Your task to perform on an android device: Clear the shopping cart on amazon. Search for usb-a on amazon, select the first entry, add it to the cart, then select checkout. Image 0: 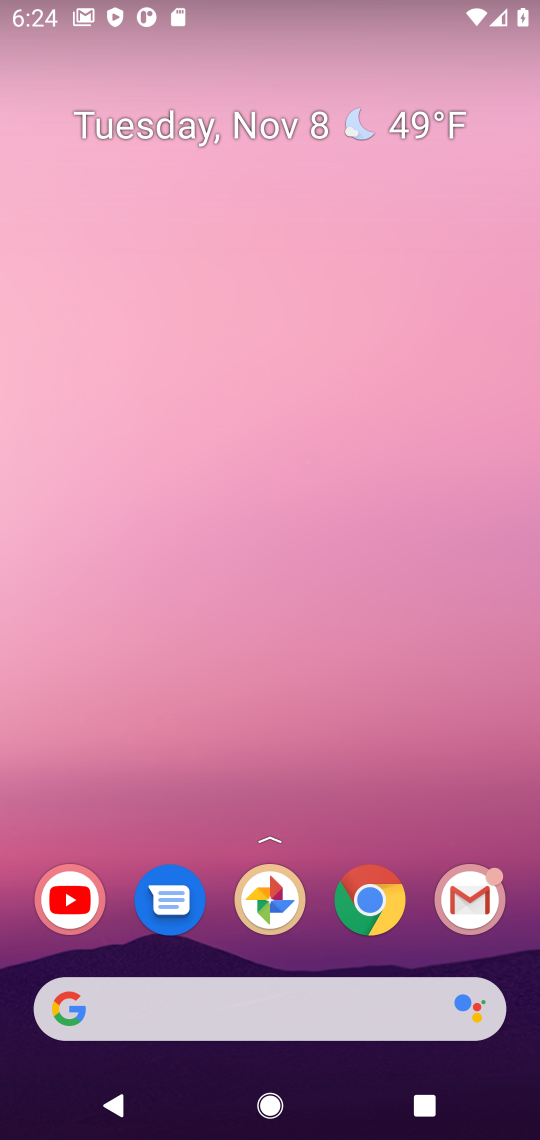
Step 0: click (393, 916)
Your task to perform on an android device: Clear the shopping cart on amazon. Search for usb-a on amazon, select the first entry, add it to the cart, then select checkout. Image 1: 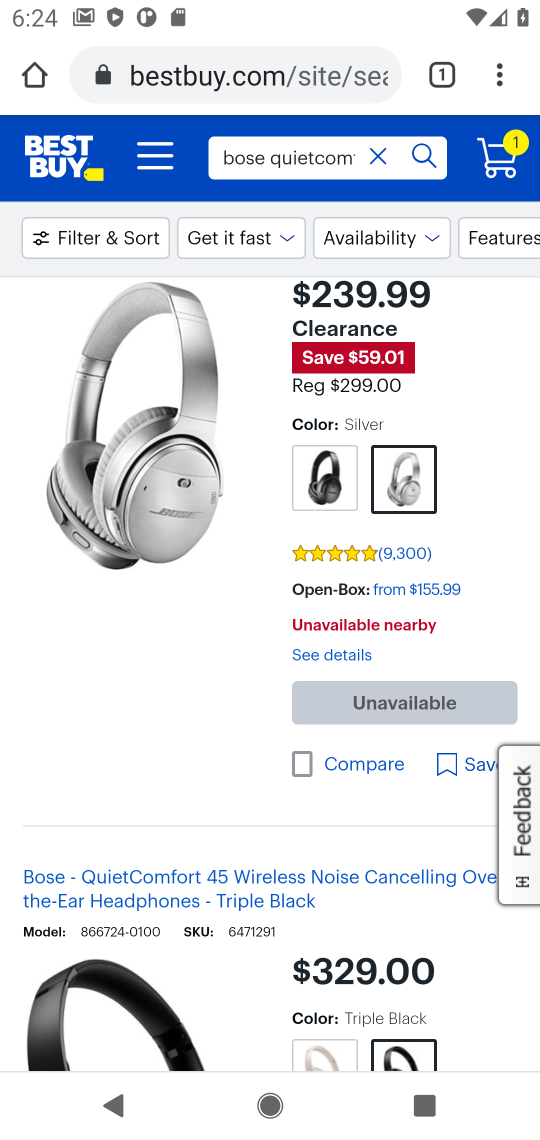
Step 1: click (348, 95)
Your task to perform on an android device: Clear the shopping cart on amazon. Search for usb-a on amazon, select the first entry, add it to the cart, then select checkout. Image 2: 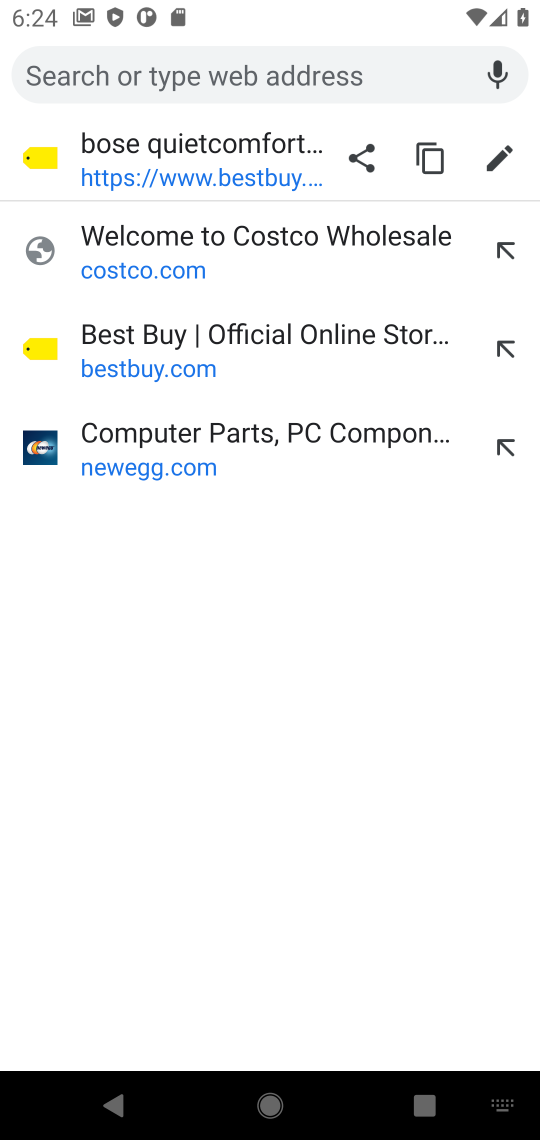
Step 2: type "amazon"
Your task to perform on an android device: Clear the shopping cart on amazon. Search for usb-a on amazon, select the first entry, add it to the cart, then select checkout. Image 3: 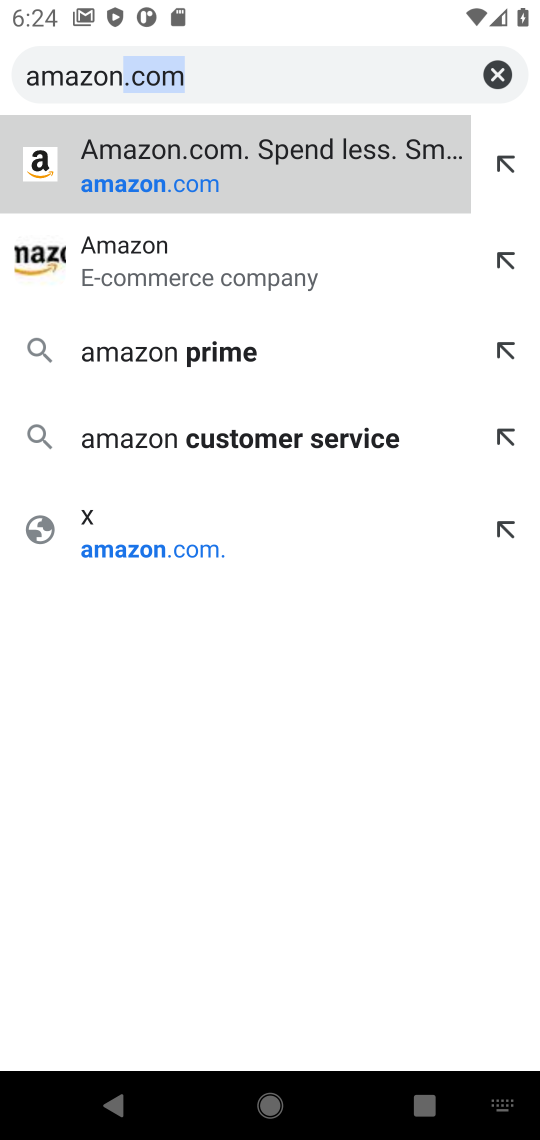
Step 3: type ""
Your task to perform on an android device: Clear the shopping cart on amazon. Search for usb-a on amazon, select the first entry, add it to the cart, then select checkout. Image 4: 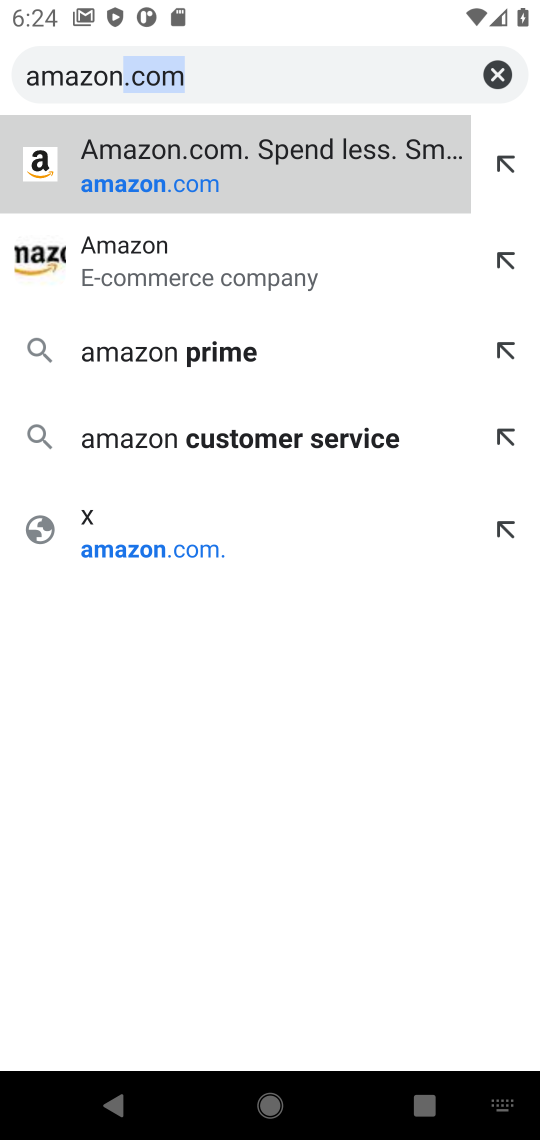
Step 4: press enter
Your task to perform on an android device: Clear the shopping cart on amazon. Search for usb-a on amazon, select the first entry, add it to the cart, then select checkout. Image 5: 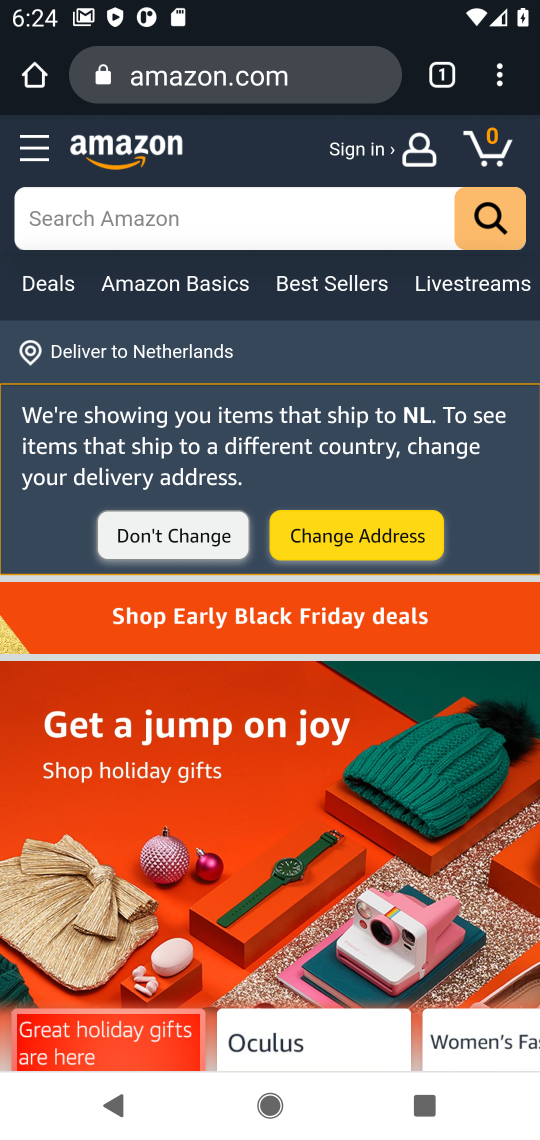
Step 5: click (502, 192)
Your task to perform on an android device: Clear the shopping cart on amazon. Search for usb-a on amazon, select the first entry, add it to the cart, then select checkout. Image 6: 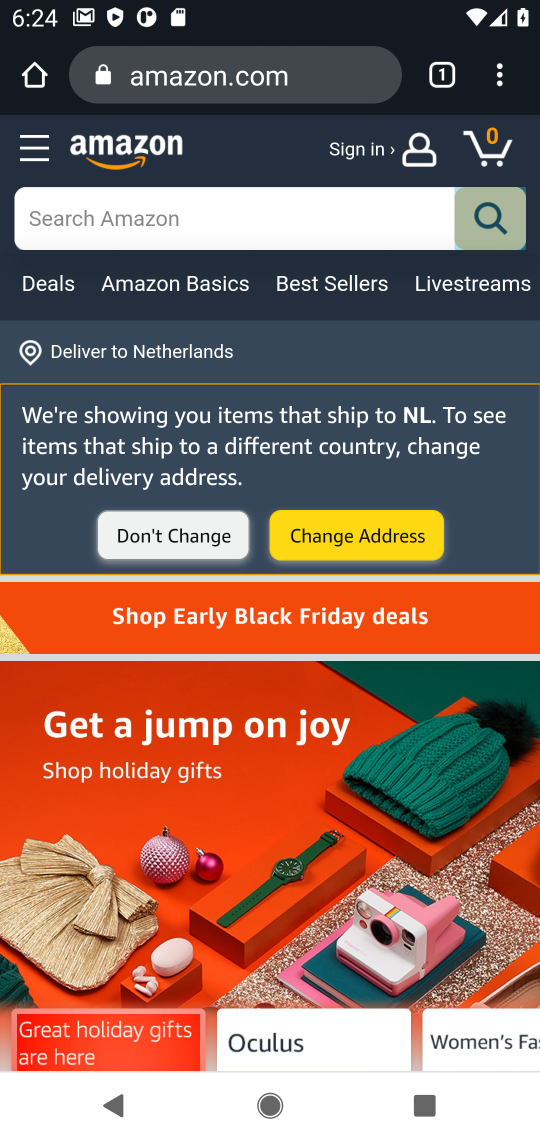
Step 6: click (489, 163)
Your task to perform on an android device: Clear the shopping cart on amazon. Search for usb-a on amazon, select the first entry, add it to the cart, then select checkout. Image 7: 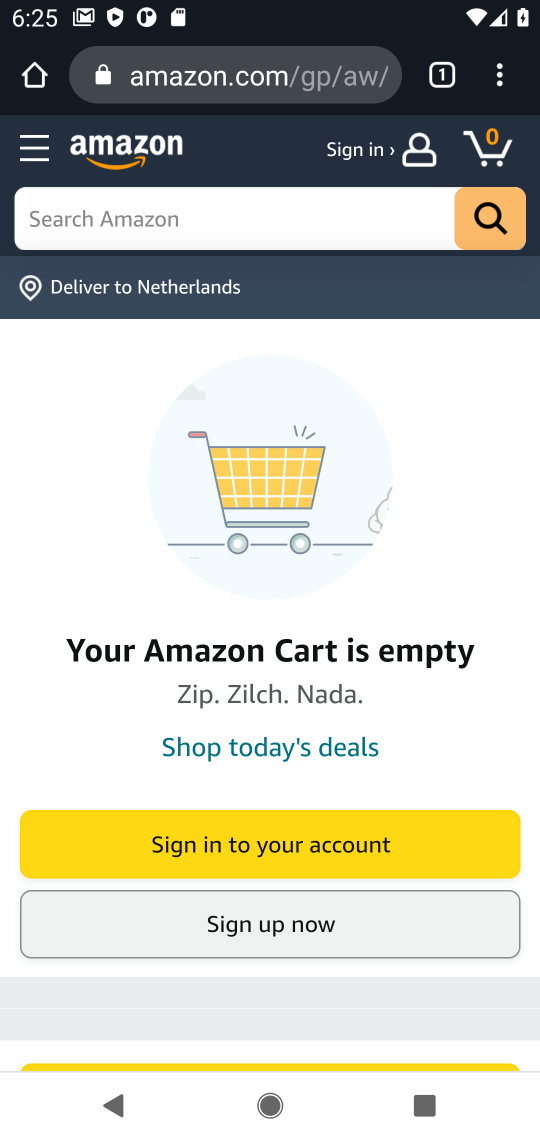
Step 7: click (217, 227)
Your task to perform on an android device: Clear the shopping cart on amazon. Search for usb-a on amazon, select the first entry, add it to the cart, then select checkout. Image 8: 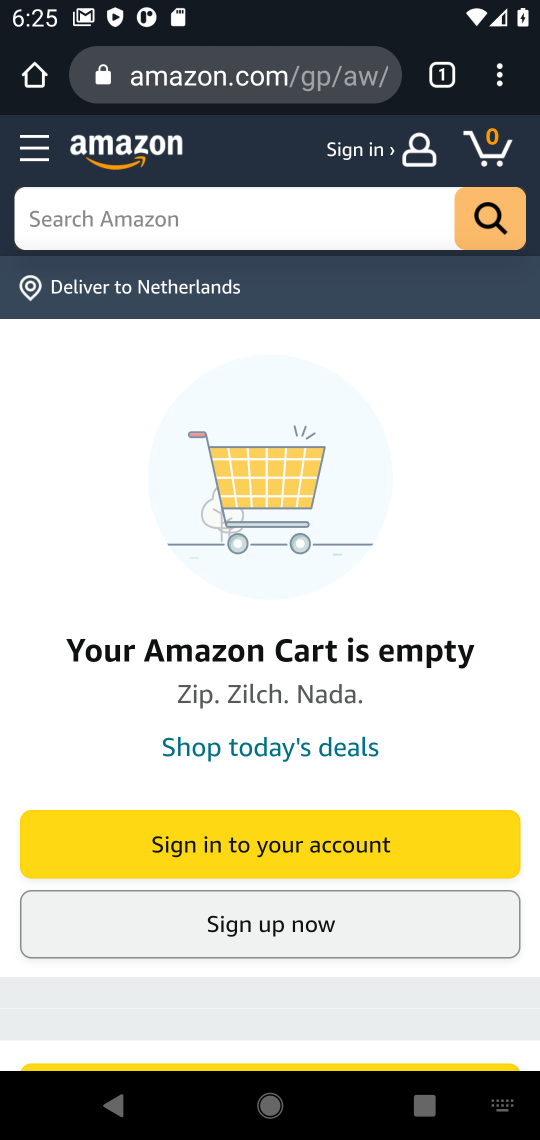
Step 8: type "usb-a"
Your task to perform on an android device: Clear the shopping cart on amazon. Search for usb-a on amazon, select the first entry, add it to the cart, then select checkout. Image 9: 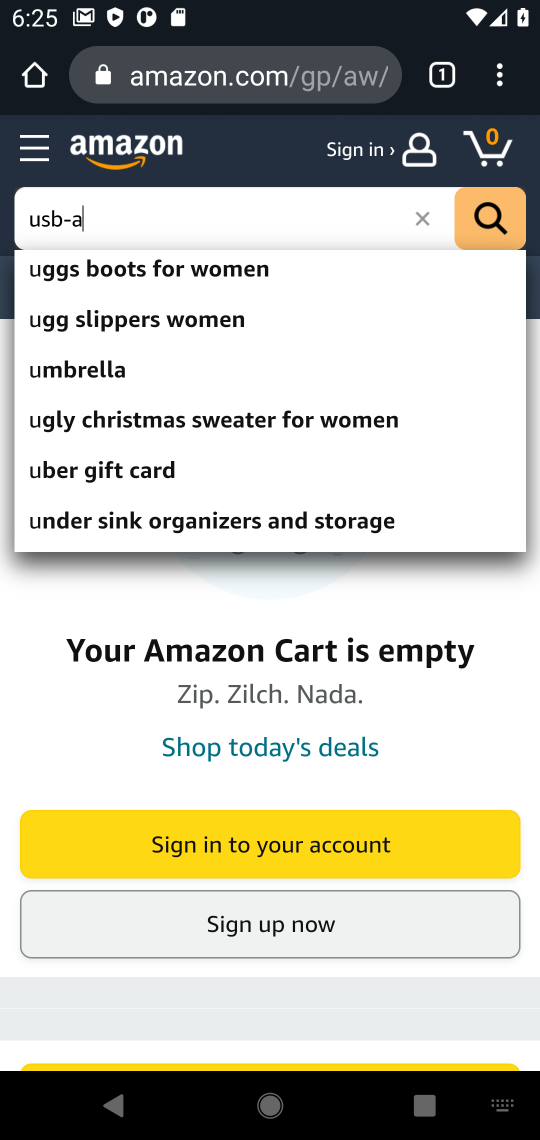
Step 9: type ""
Your task to perform on an android device: Clear the shopping cart on amazon. Search for usb-a on amazon, select the first entry, add it to the cart, then select checkout. Image 10: 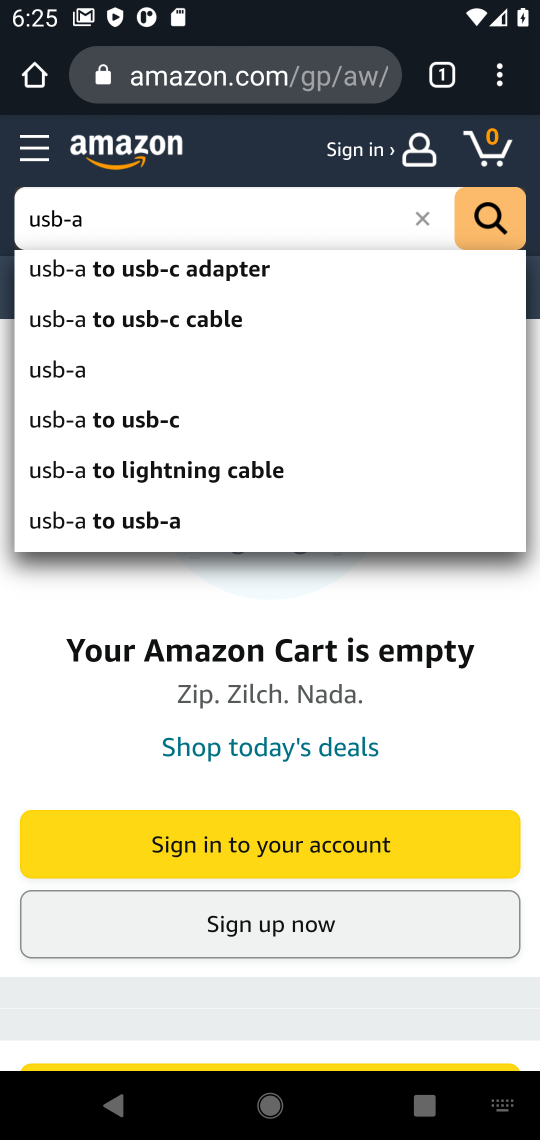
Step 10: press enter
Your task to perform on an android device: Clear the shopping cart on amazon. Search for usb-a on amazon, select the first entry, add it to the cart, then select checkout. Image 11: 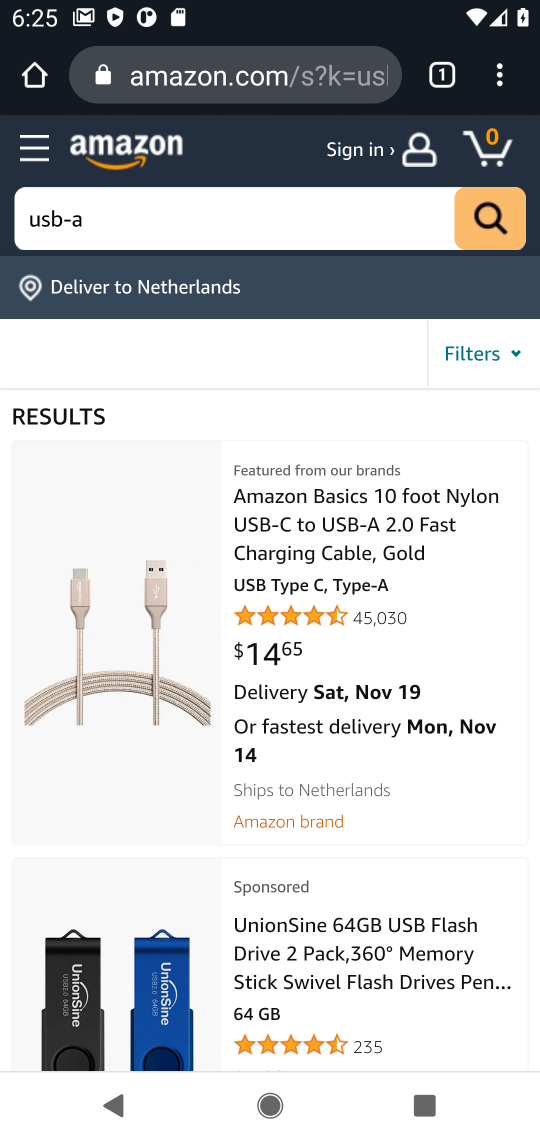
Step 11: click (298, 563)
Your task to perform on an android device: Clear the shopping cart on amazon. Search for usb-a on amazon, select the first entry, add it to the cart, then select checkout. Image 12: 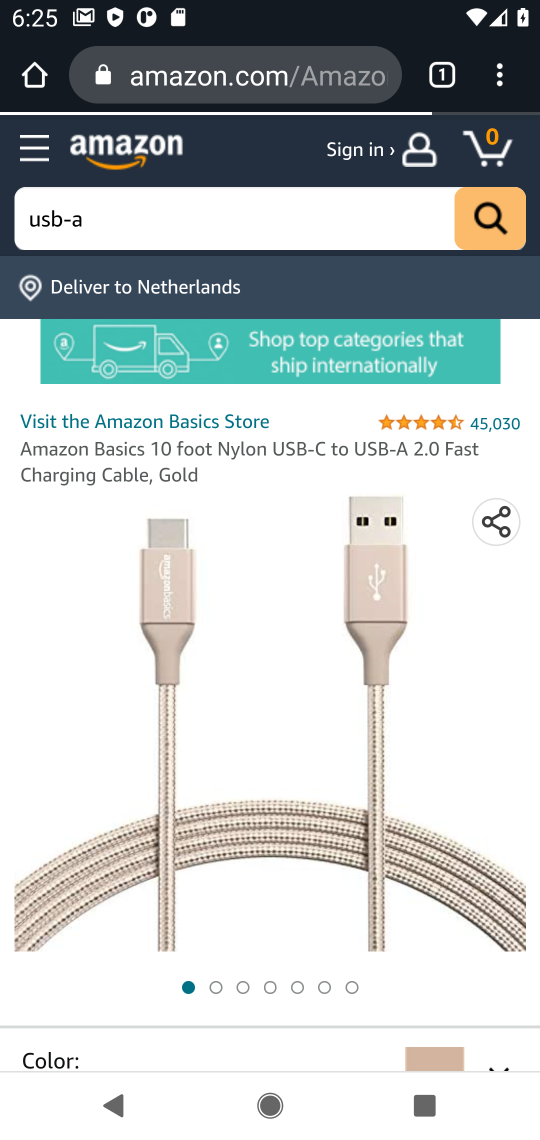
Step 12: drag from (236, 935) to (265, 161)
Your task to perform on an android device: Clear the shopping cart on amazon. Search for usb-a on amazon, select the first entry, add it to the cart, then select checkout. Image 13: 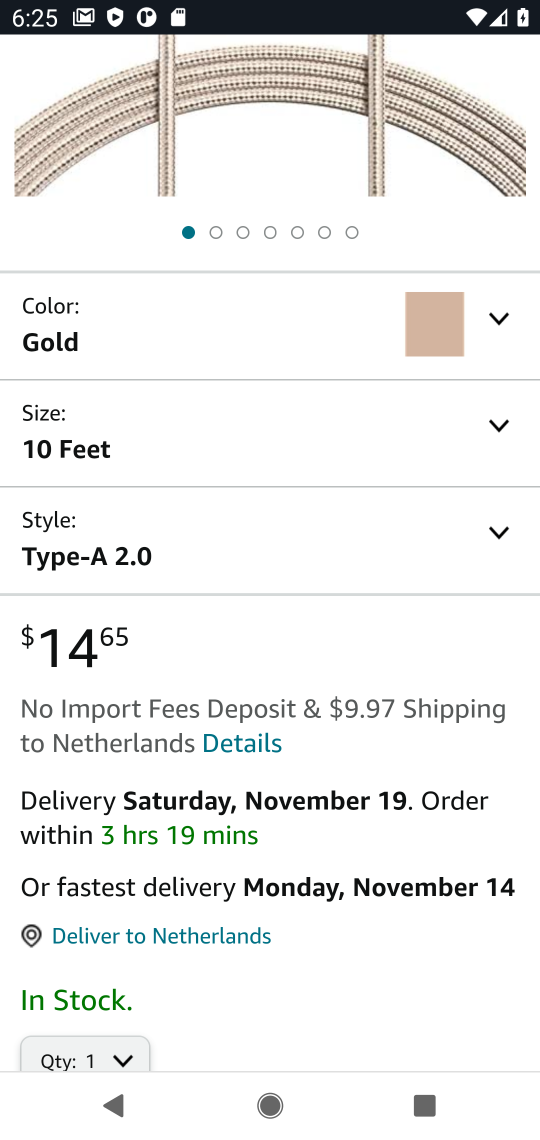
Step 13: click (300, 996)
Your task to perform on an android device: Clear the shopping cart on amazon. Search for usb-a on amazon, select the first entry, add it to the cart, then select checkout. Image 14: 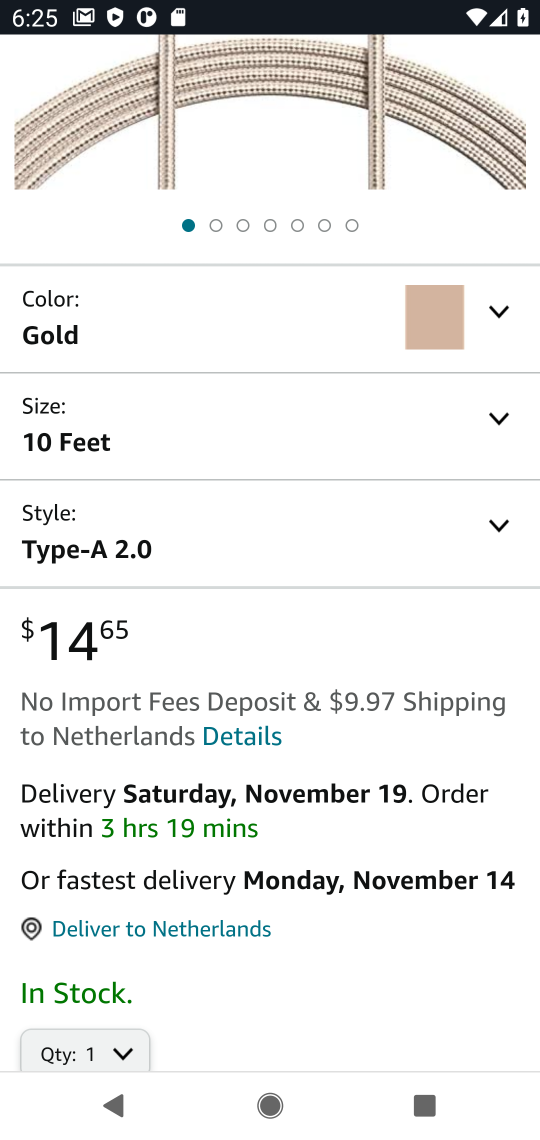
Step 14: drag from (290, 839) to (272, 613)
Your task to perform on an android device: Clear the shopping cart on amazon. Search for usb-a on amazon, select the first entry, add it to the cart, then select checkout. Image 15: 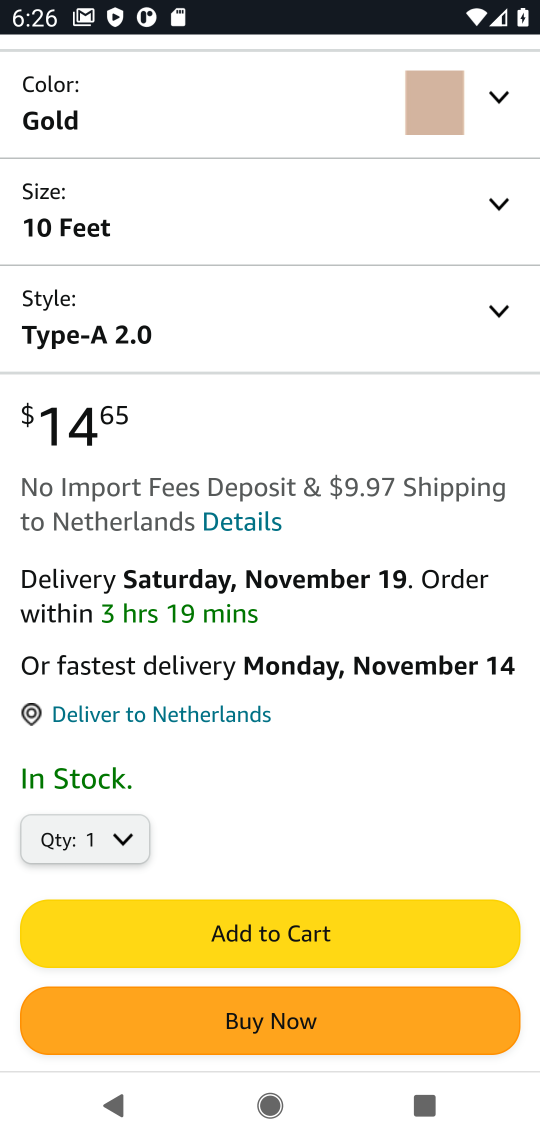
Step 15: click (322, 915)
Your task to perform on an android device: Clear the shopping cart on amazon. Search for usb-a on amazon, select the first entry, add it to the cart, then select checkout. Image 16: 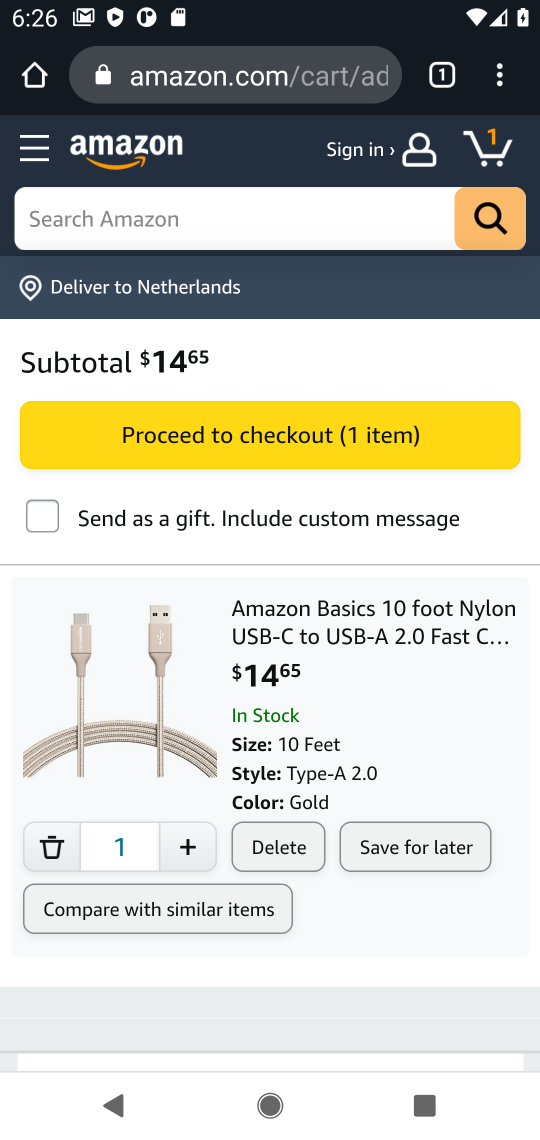
Step 16: click (390, 433)
Your task to perform on an android device: Clear the shopping cart on amazon. Search for usb-a on amazon, select the first entry, add it to the cart, then select checkout. Image 17: 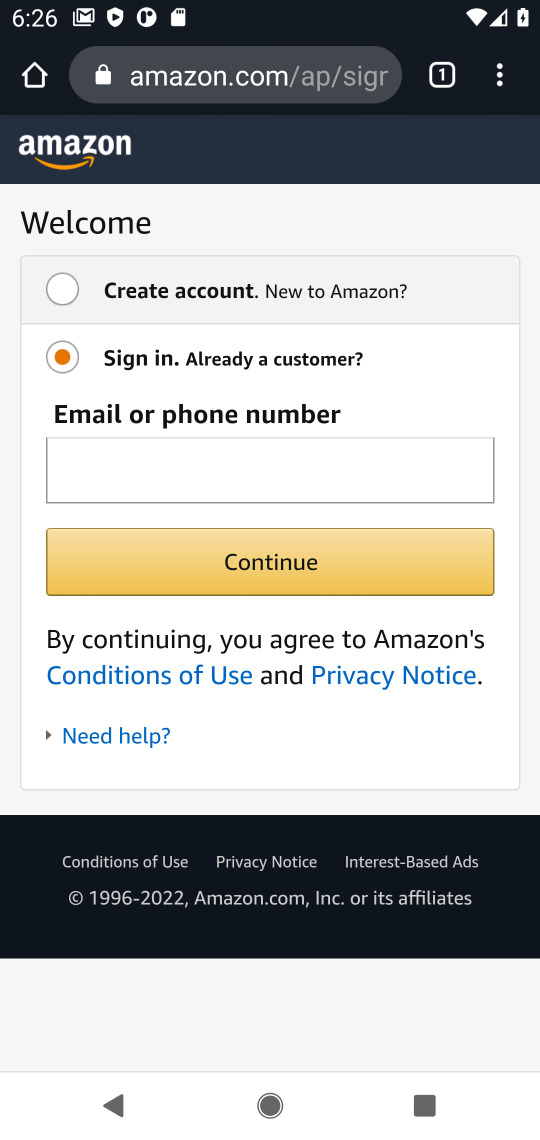
Step 17: task complete